Your task to perform on an android device: Open the web browser Image 0: 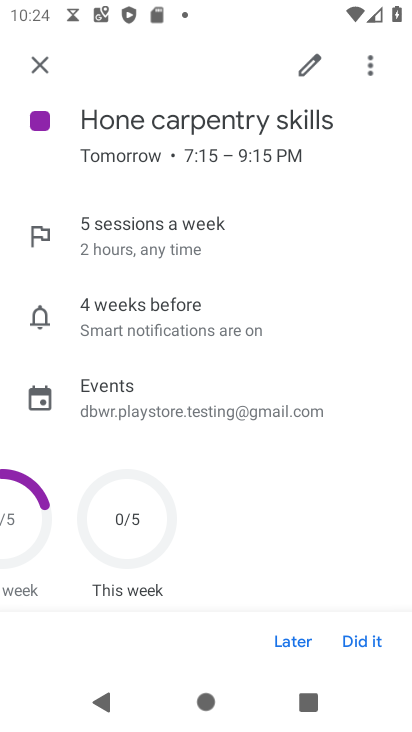
Step 0: press home button
Your task to perform on an android device: Open the web browser Image 1: 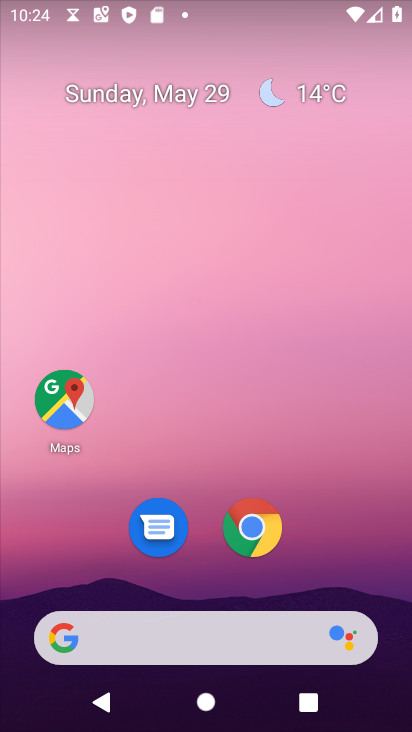
Step 1: click (248, 528)
Your task to perform on an android device: Open the web browser Image 2: 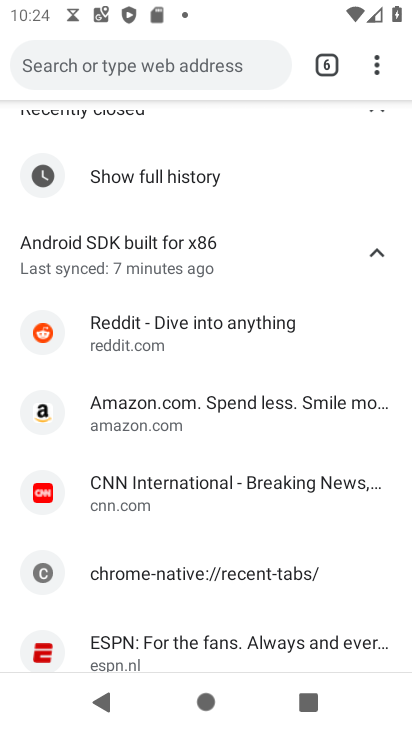
Step 2: task complete